Your task to perform on an android device: see sites visited before in the chrome app Image 0: 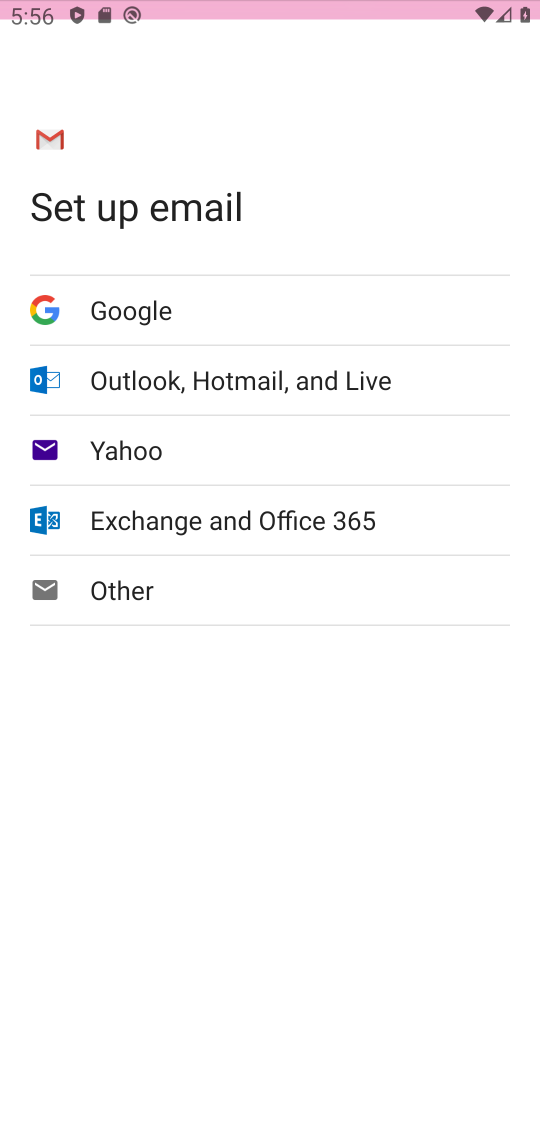
Step 0: press back button
Your task to perform on an android device: see sites visited before in the chrome app Image 1: 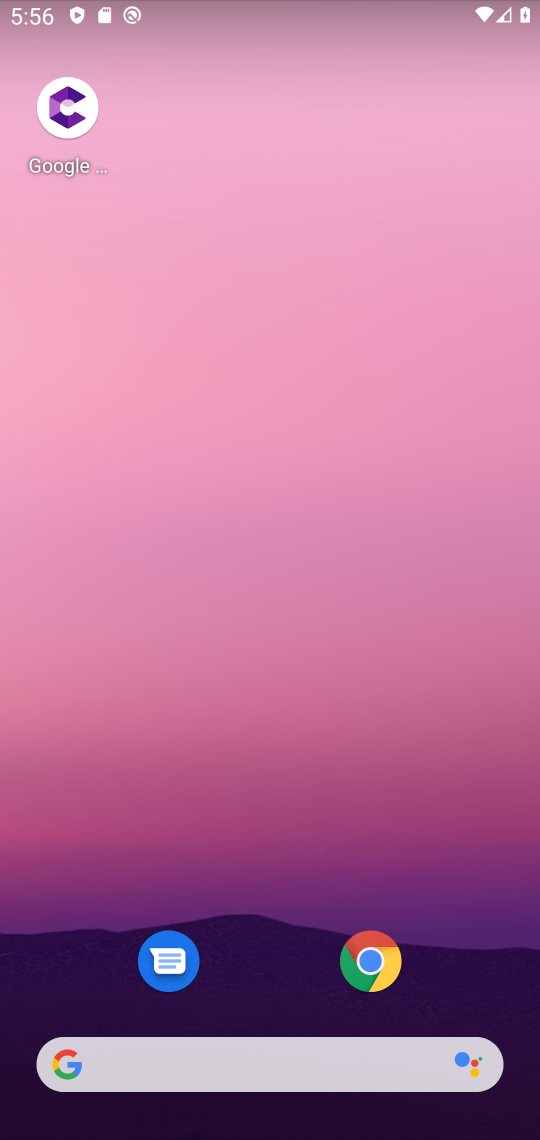
Step 1: drag from (199, 696) to (343, 280)
Your task to perform on an android device: see sites visited before in the chrome app Image 2: 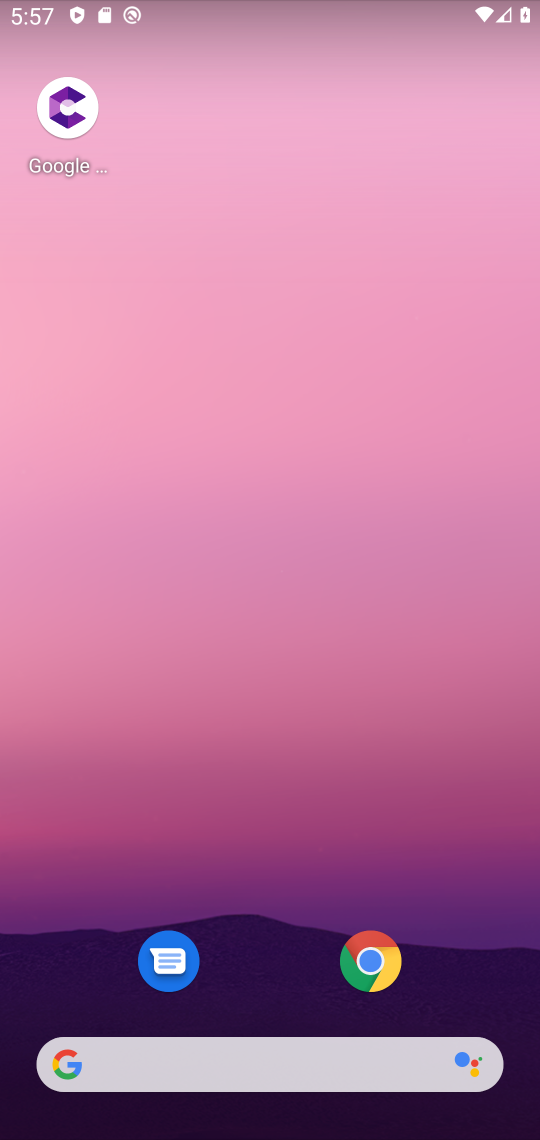
Step 2: drag from (233, 1030) to (345, 200)
Your task to perform on an android device: see sites visited before in the chrome app Image 3: 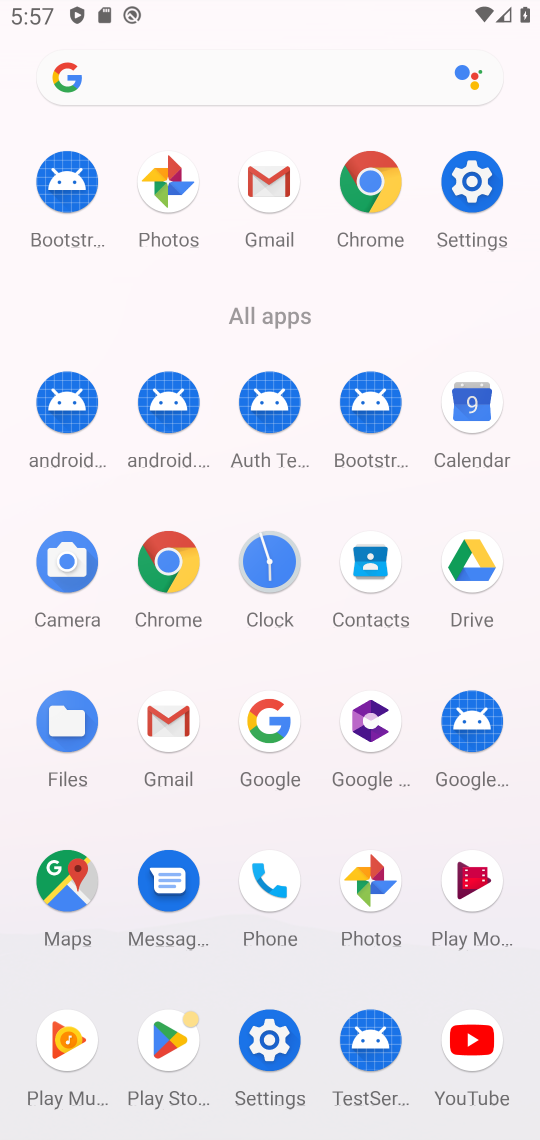
Step 3: click (153, 571)
Your task to perform on an android device: see sites visited before in the chrome app Image 4: 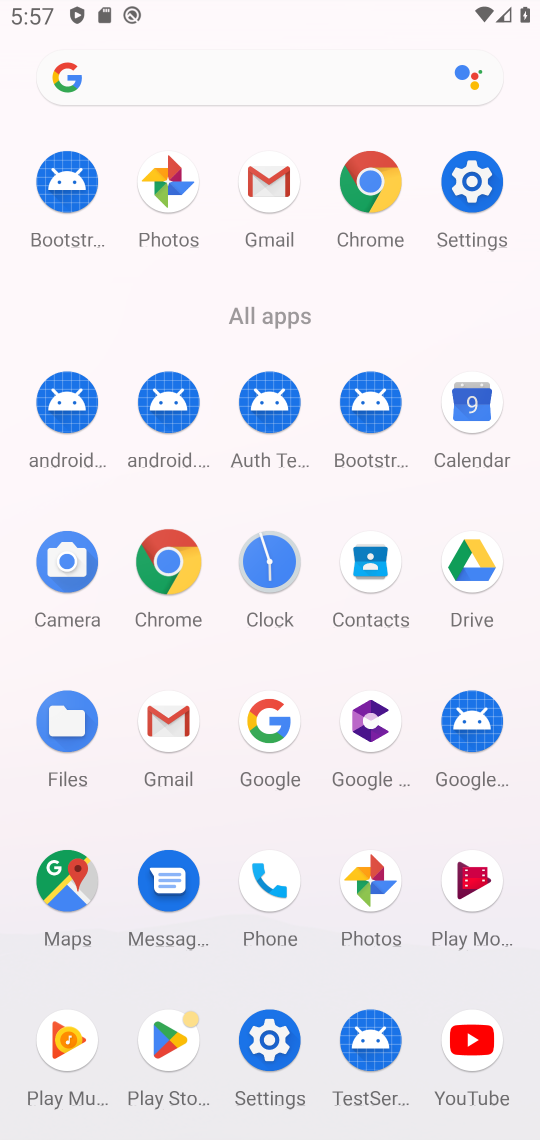
Step 4: click (166, 566)
Your task to perform on an android device: see sites visited before in the chrome app Image 5: 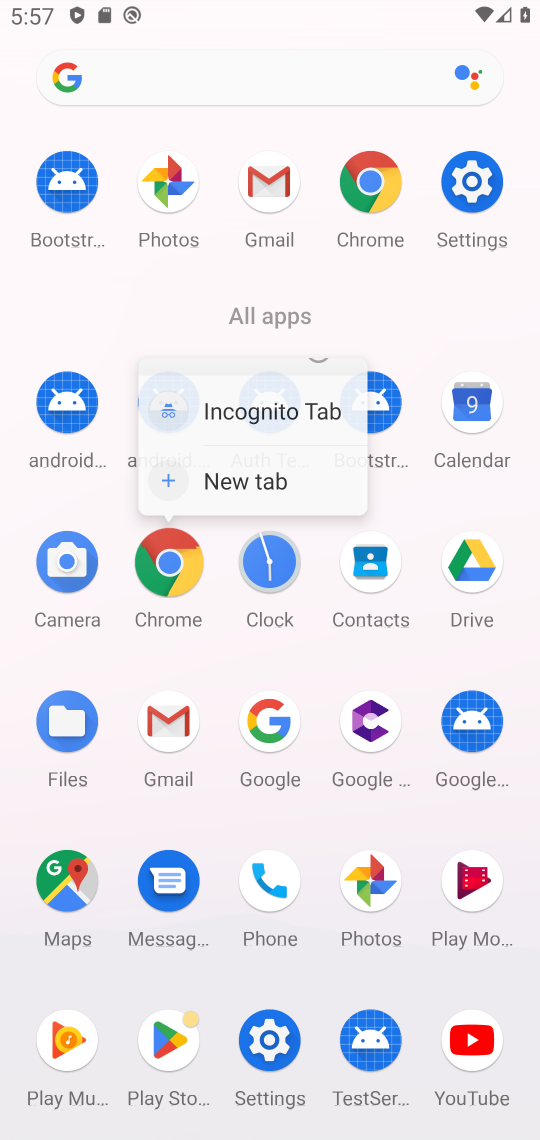
Step 5: click (167, 566)
Your task to perform on an android device: see sites visited before in the chrome app Image 6: 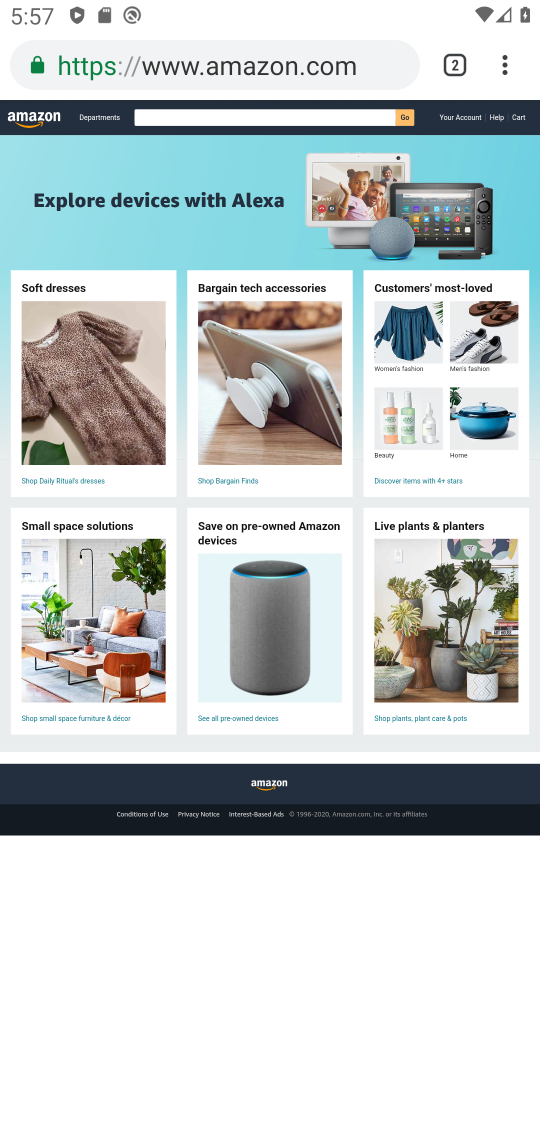
Step 6: drag from (505, 57) to (283, 322)
Your task to perform on an android device: see sites visited before in the chrome app Image 7: 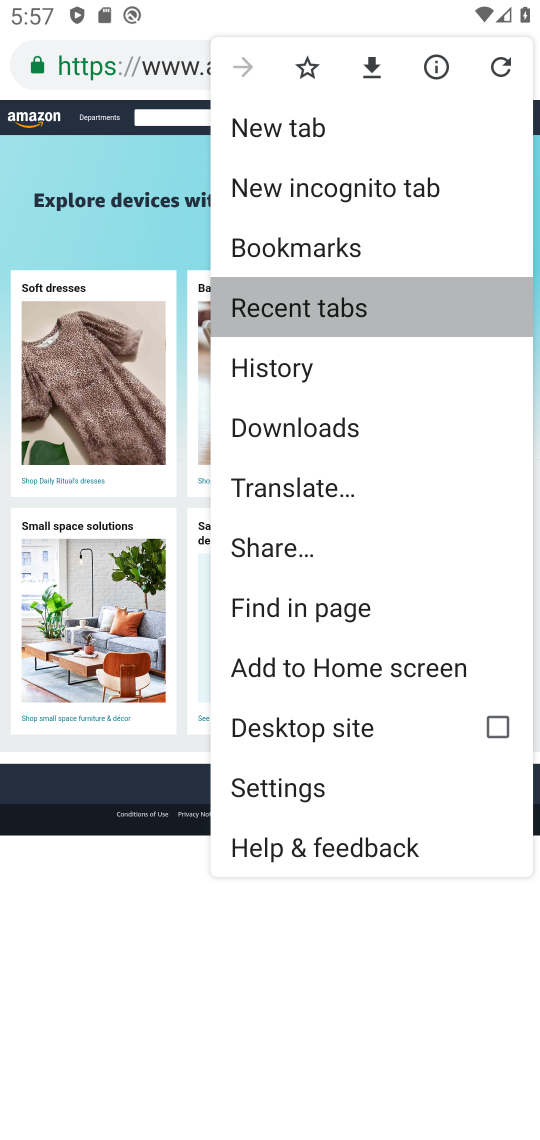
Step 7: click (320, 312)
Your task to perform on an android device: see sites visited before in the chrome app Image 8: 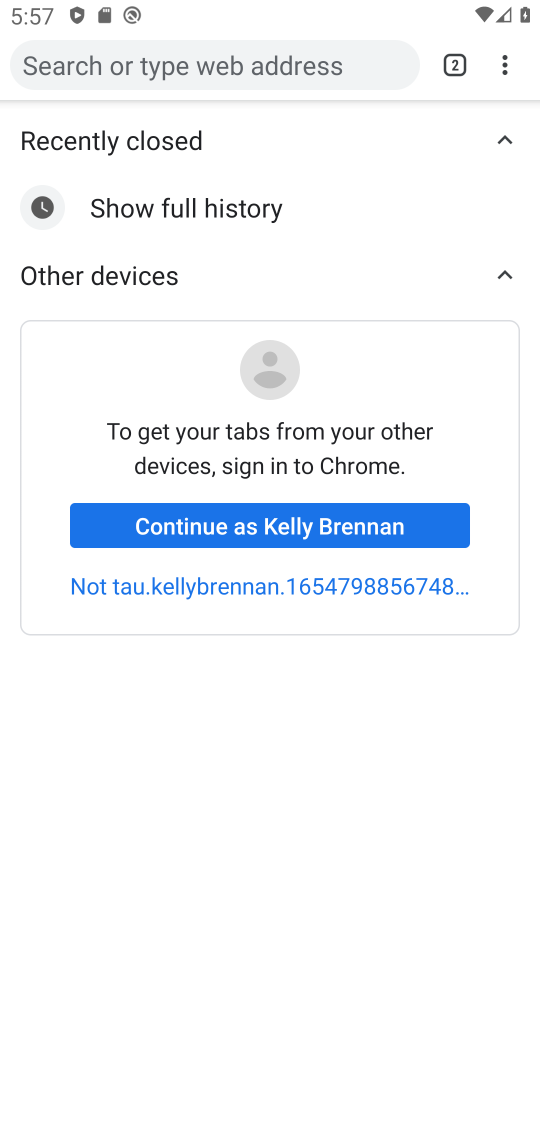
Step 8: task complete